Your task to perform on an android device: toggle improve location accuracy Image 0: 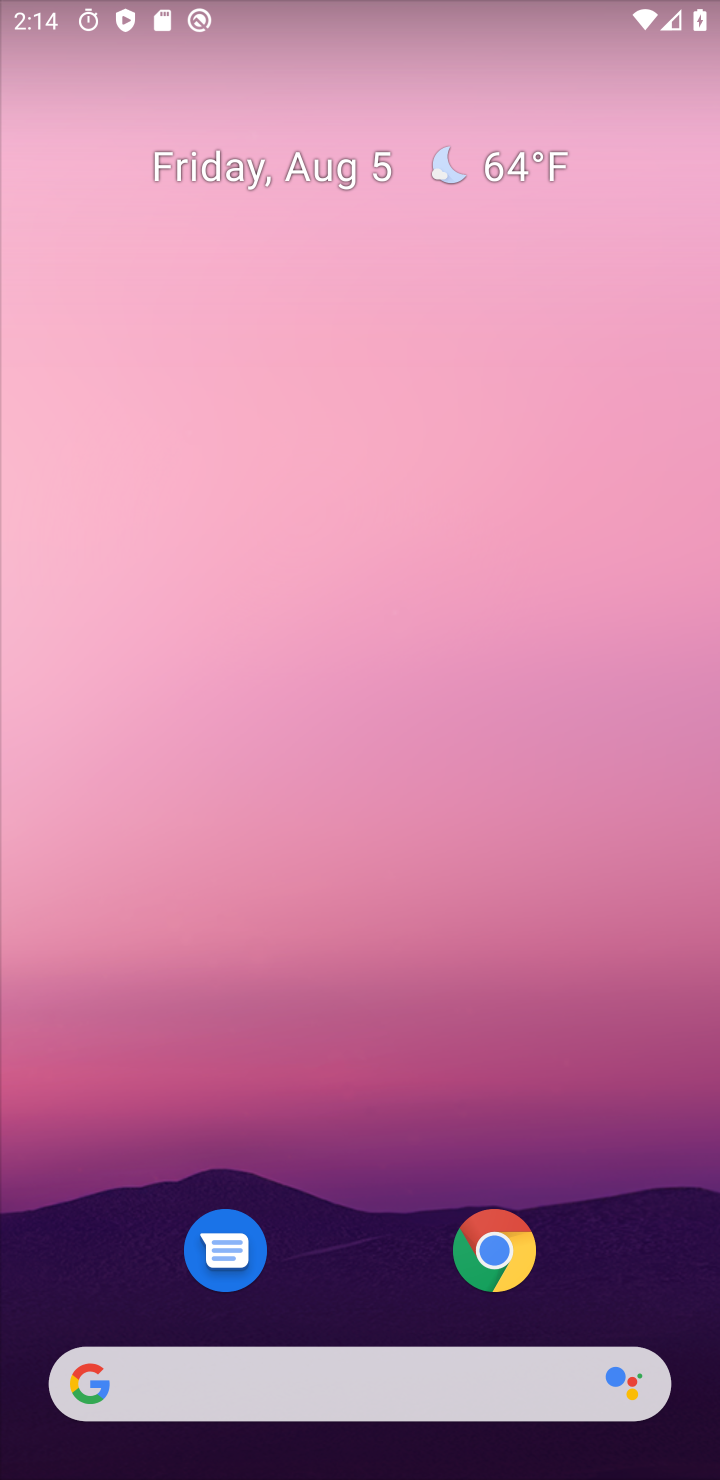
Step 0: click (519, 80)
Your task to perform on an android device: toggle improve location accuracy Image 1: 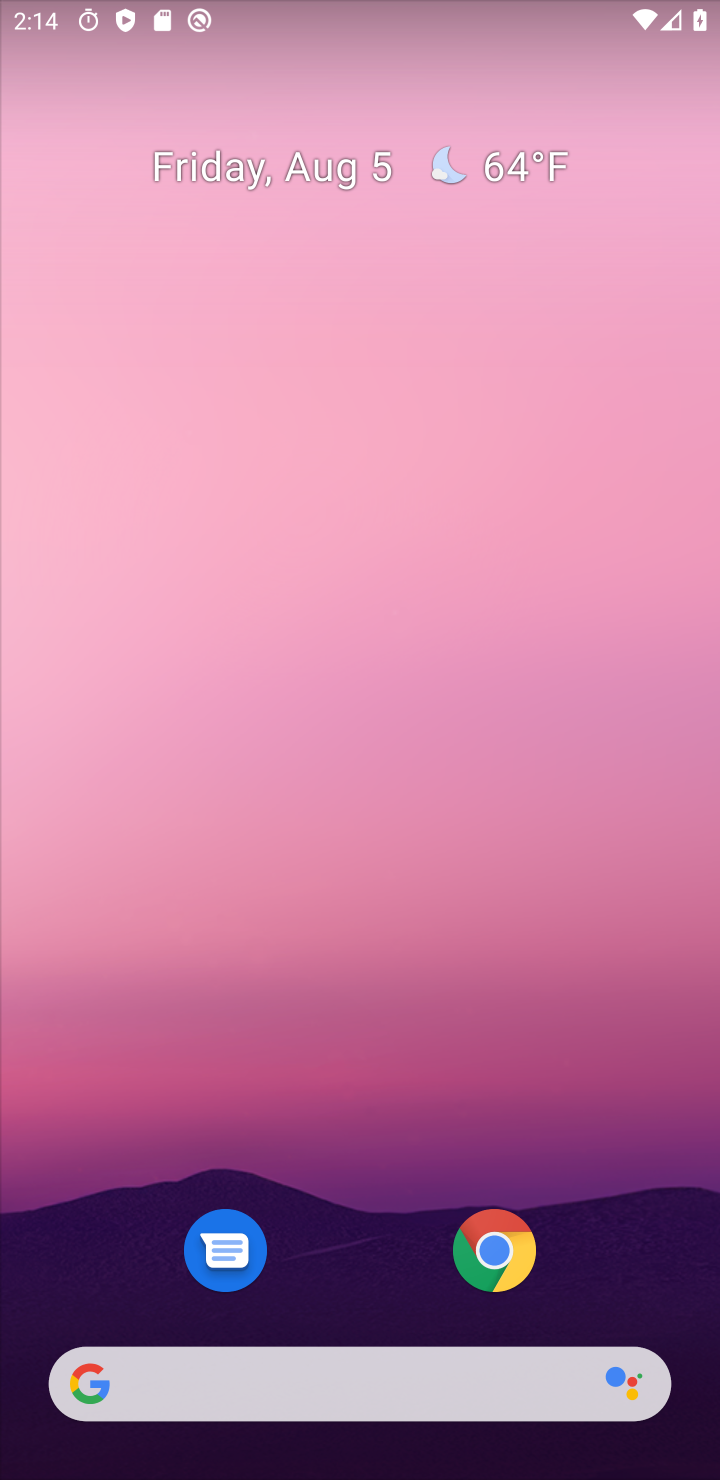
Step 1: drag from (335, 1309) to (356, 307)
Your task to perform on an android device: toggle improve location accuracy Image 2: 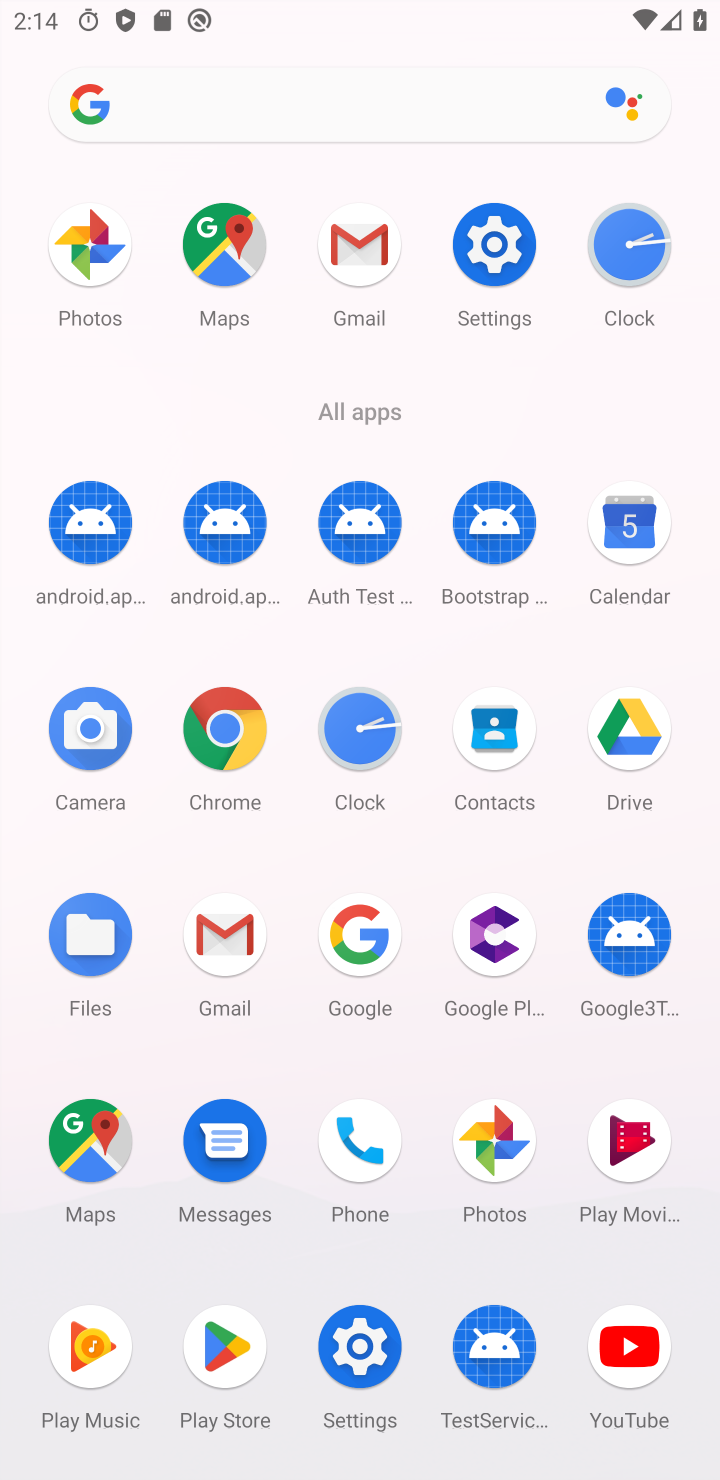
Step 2: click (494, 254)
Your task to perform on an android device: toggle improve location accuracy Image 3: 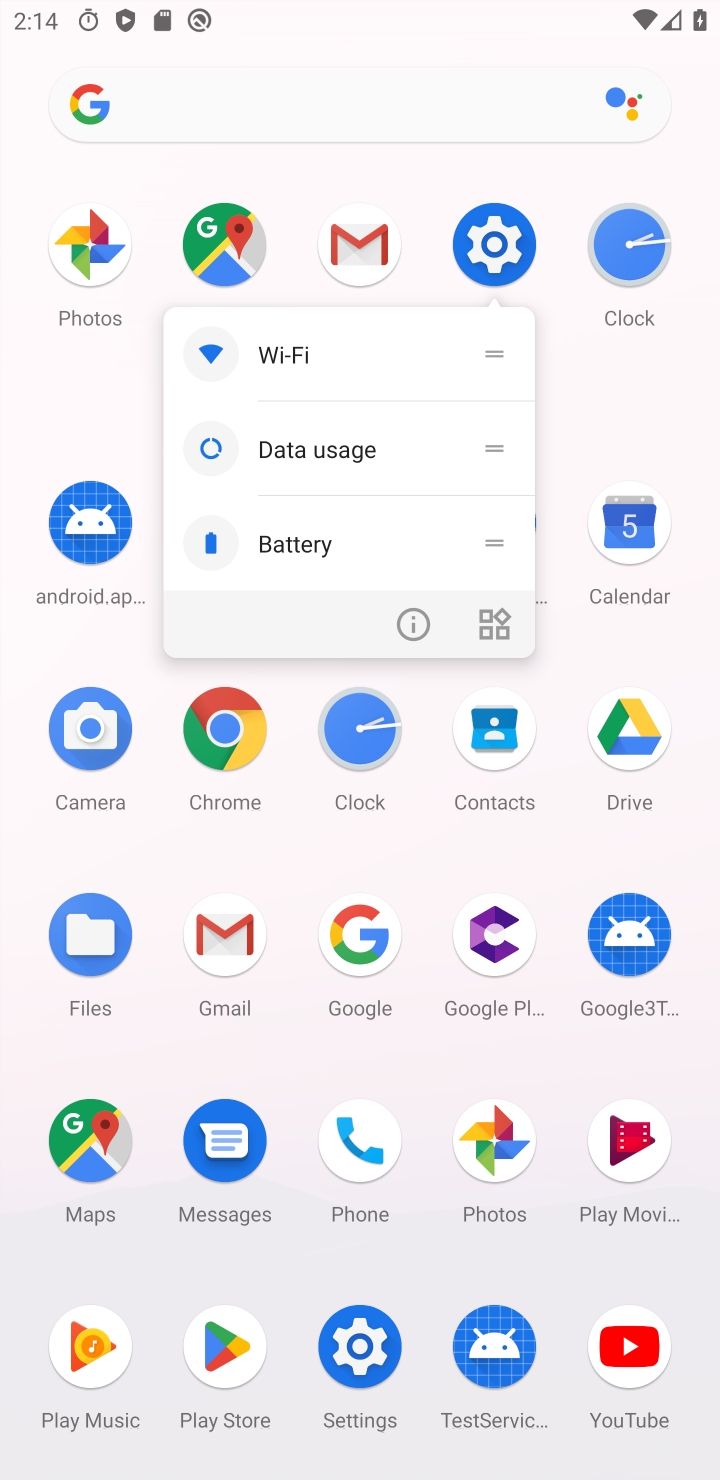
Step 3: click (393, 639)
Your task to perform on an android device: toggle improve location accuracy Image 4: 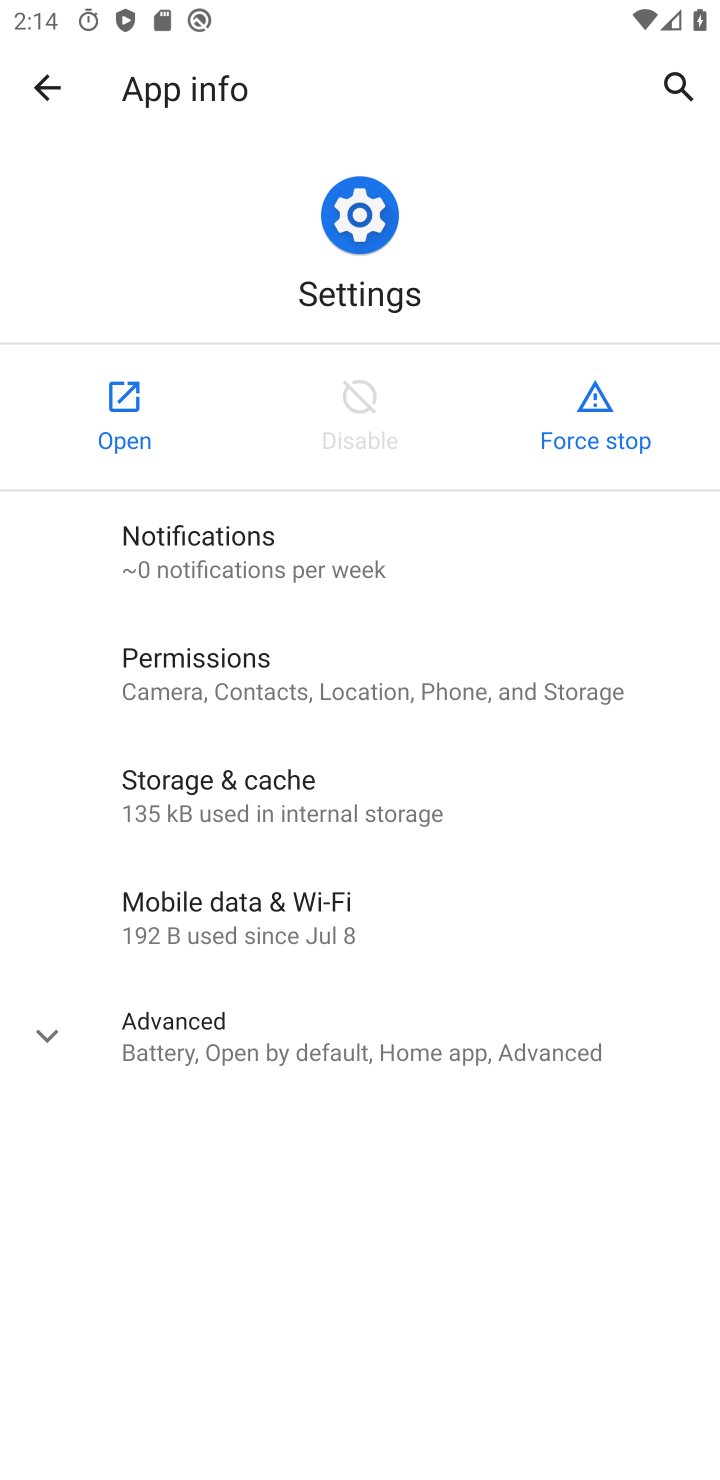
Step 4: click (95, 424)
Your task to perform on an android device: toggle improve location accuracy Image 5: 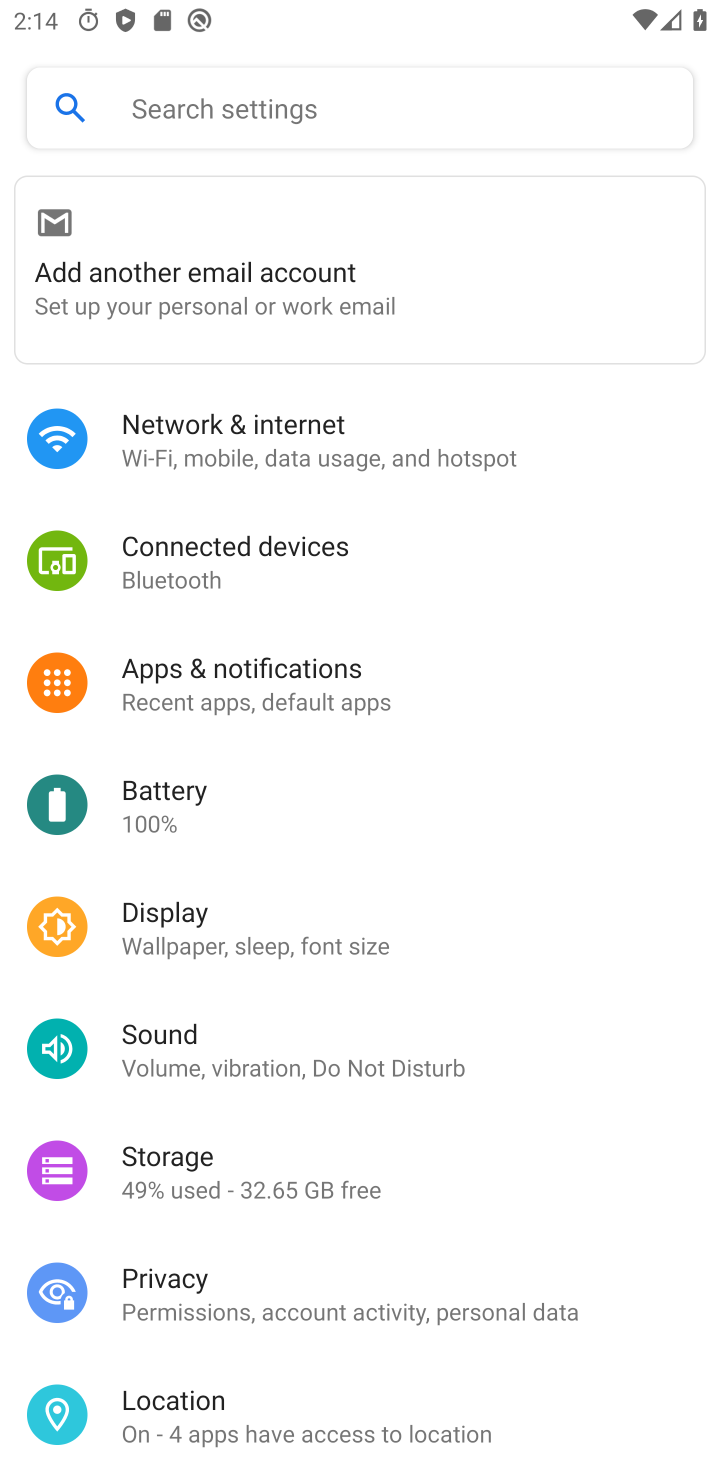
Step 5: drag from (329, 835) to (411, 441)
Your task to perform on an android device: toggle improve location accuracy Image 6: 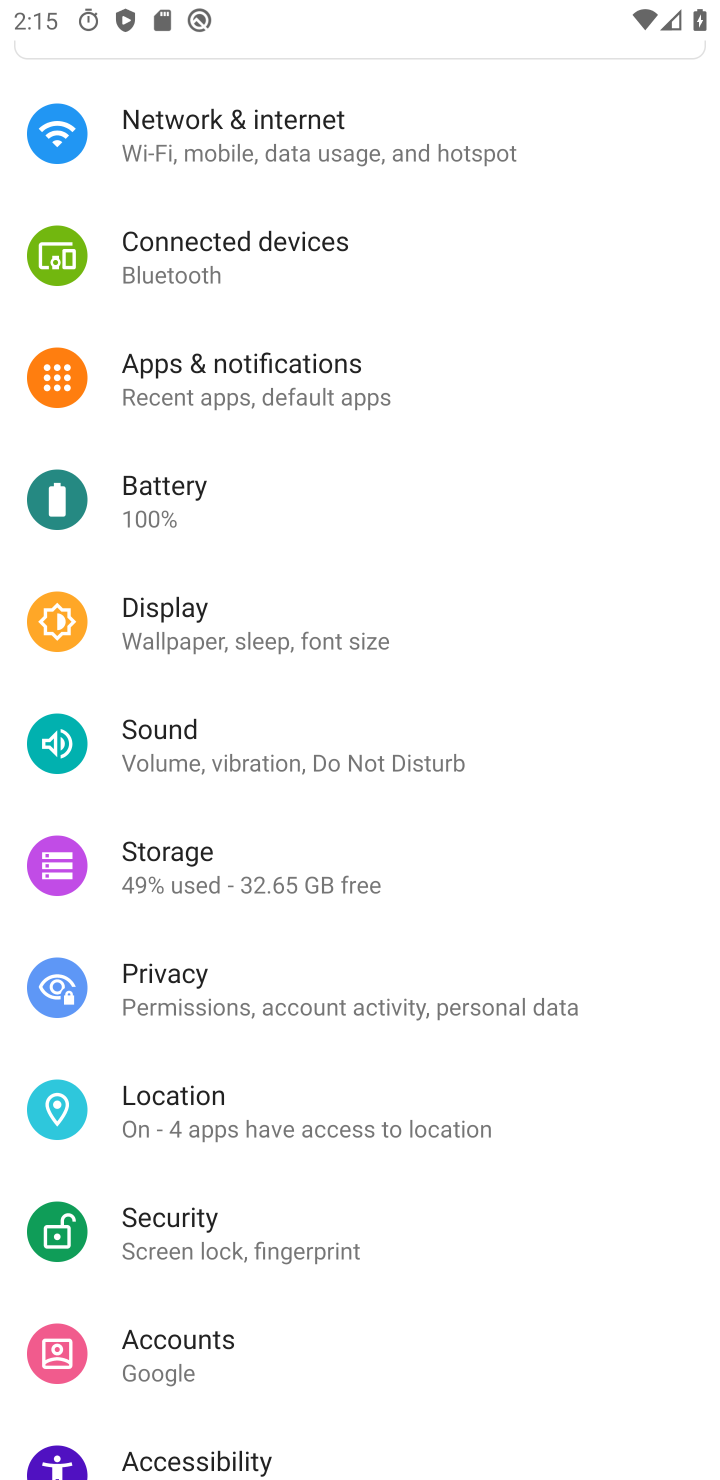
Step 6: click (232, 1123)
Your task to perform on an android device: toggle improve location accuracy Image 7: 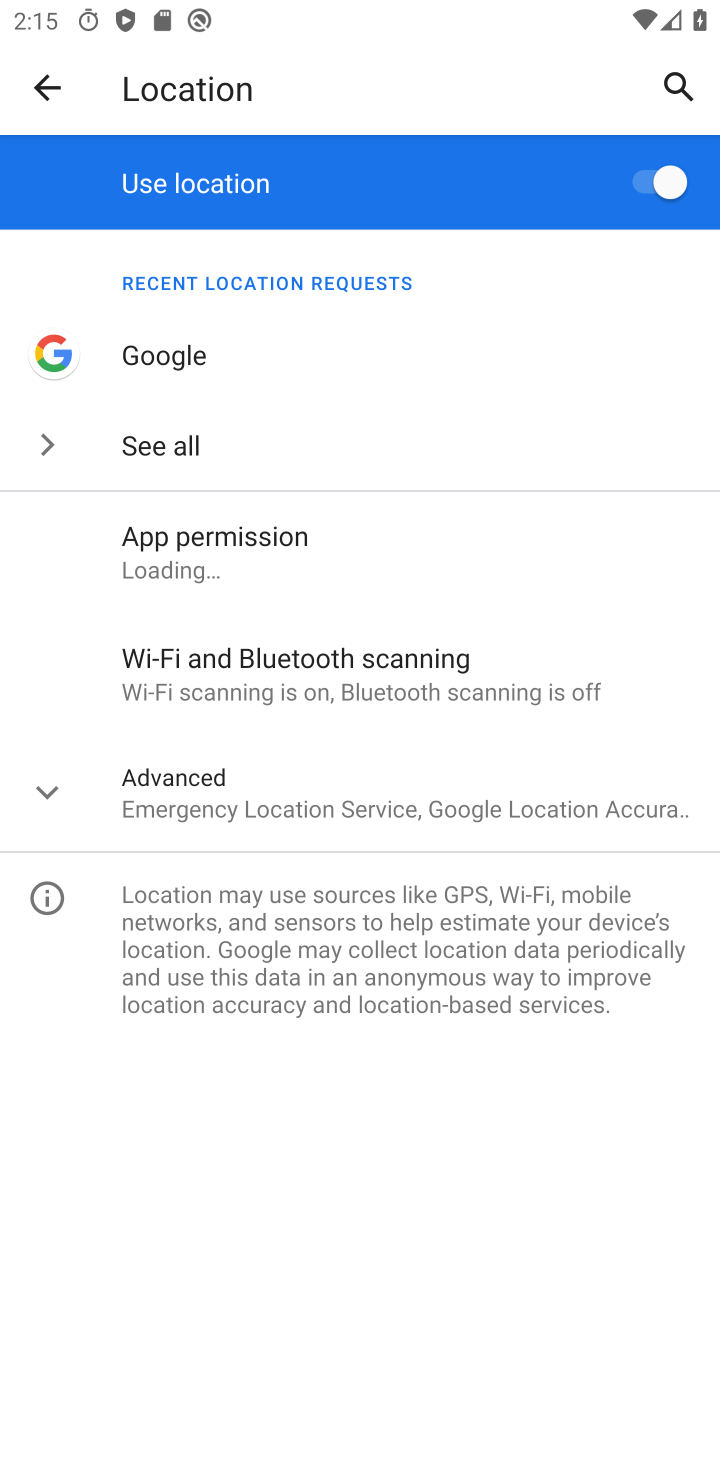
Step 7: click (138, 800)
Your task to perform on an android device: toggle improve location accuracy Image 8: 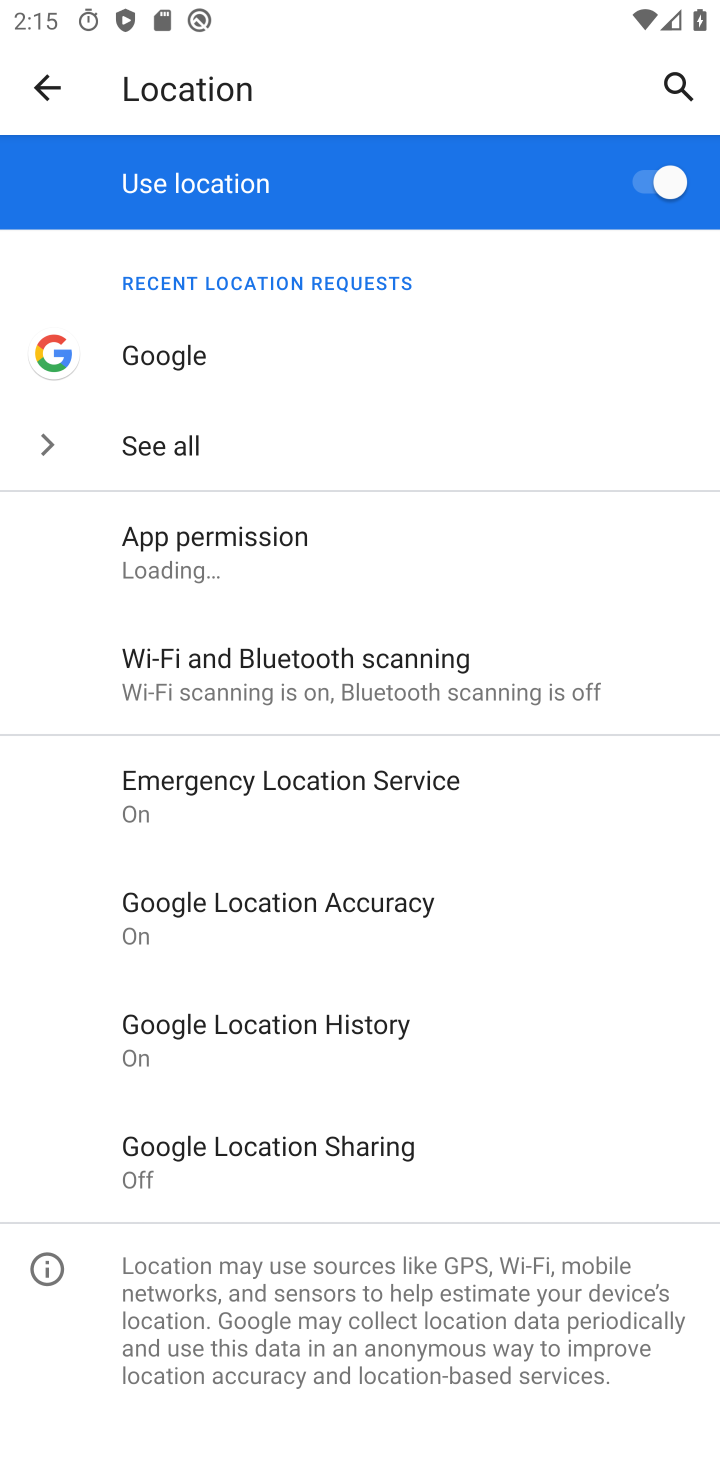
Step 8: click (362, 900)
Your task to perform on an android device: toggle improve location accuracy Image 9: 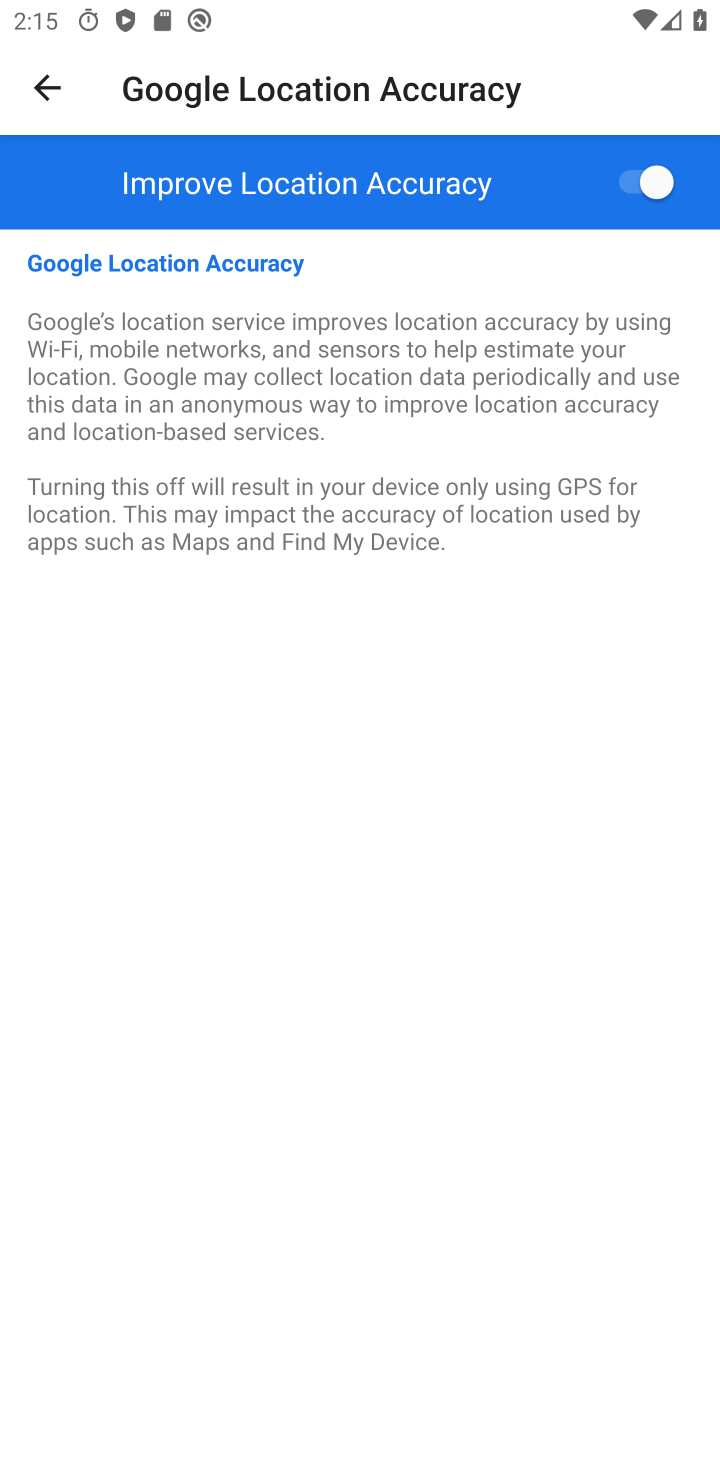
Step 9: click (629, 168)
Your task to perform on an android device: toggle improve location accuracy Image 10: 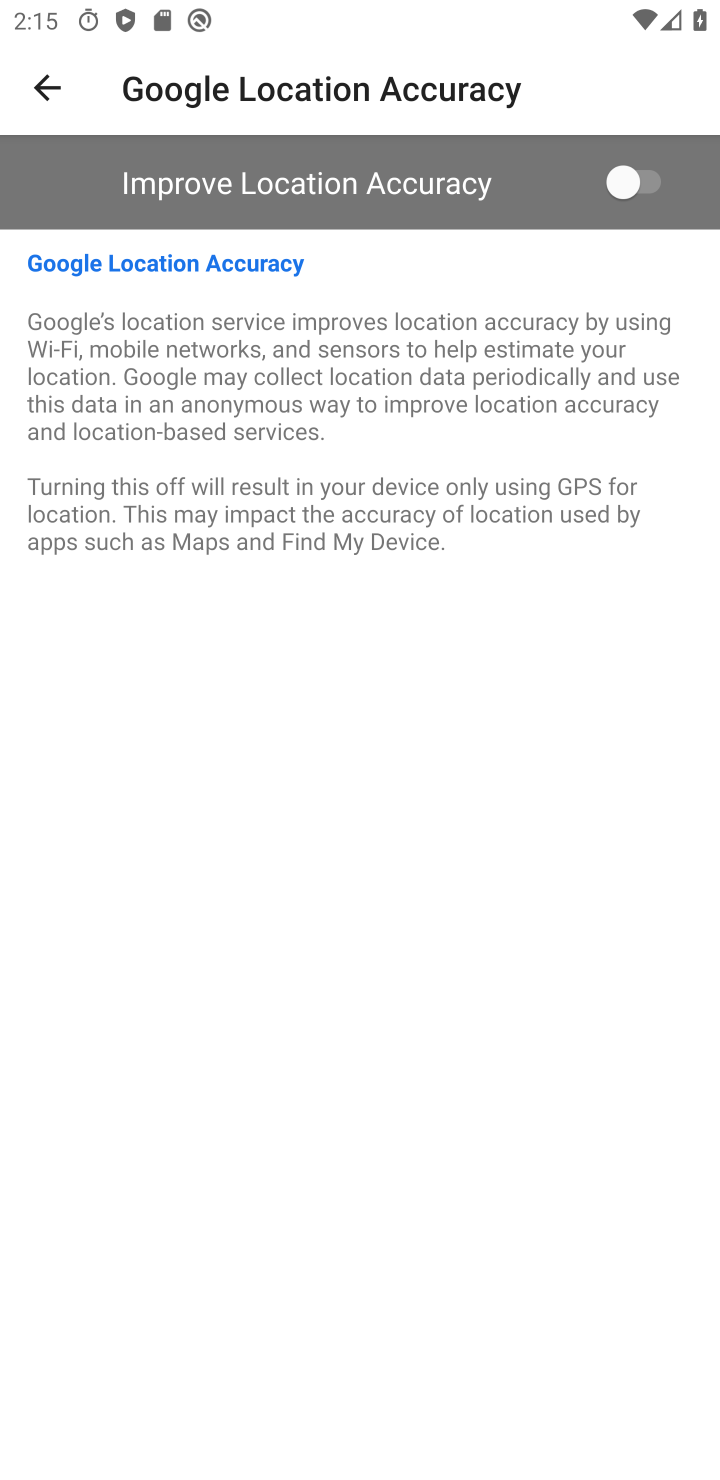
Step 10: task complete